Your task to perform on an android device: set the timer Image 0: 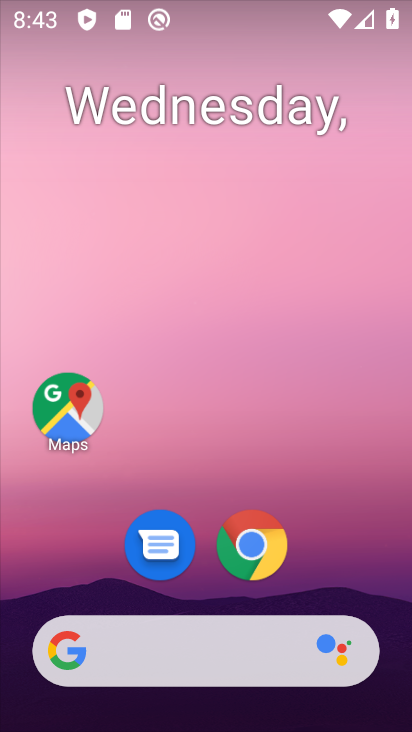
Step 0: press home button
Your task to perform on an android device: set the timer Image 1: 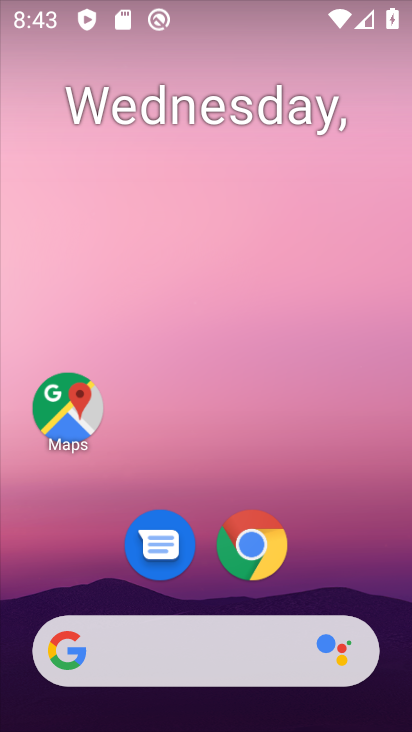
Step 1: drag from (196, 657) to (320, 175)
Your task to perform on an android device: set the timer Image 2: 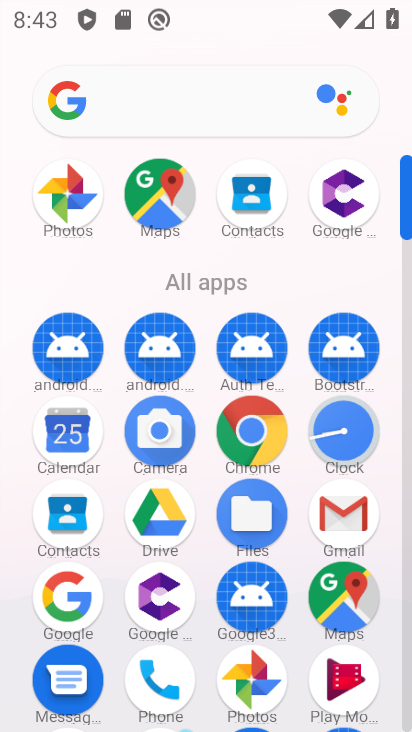
Step 2: click (334, 419)
Your task to perform on an android device: set the timer Image 3: 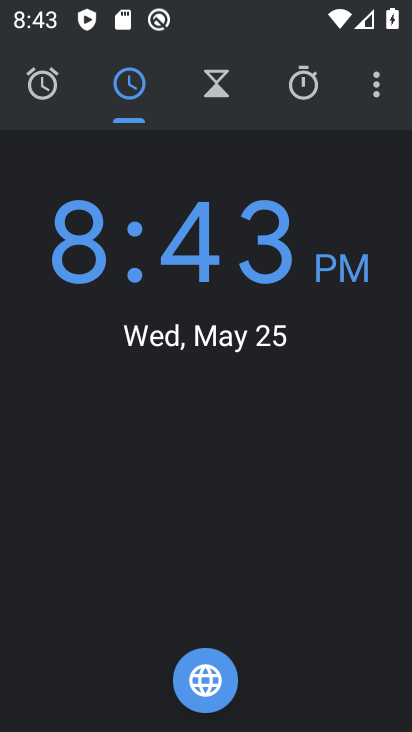
Step 3: click (217, 96)
Your task to perform on an android device: set the timer Image 4: 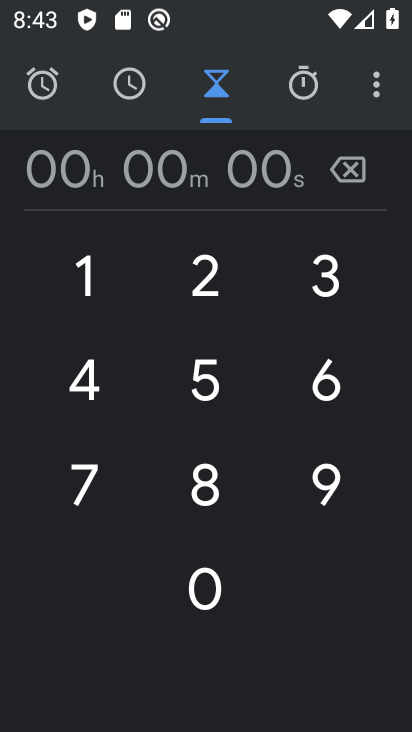
Step 4: click (86, 276)
Your task to perform on an android device: set the timer Image 5: 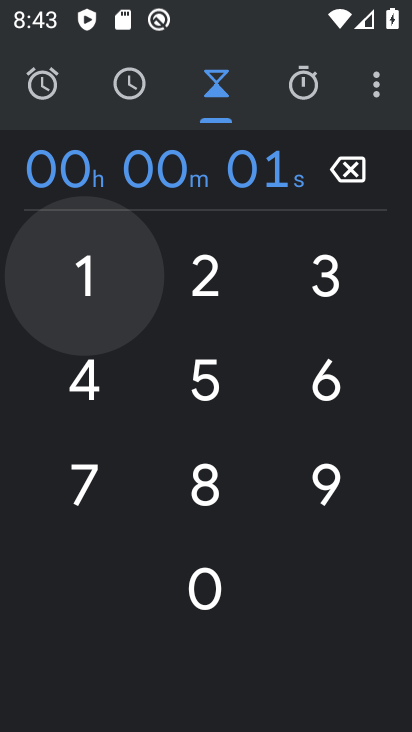
Step 5: click (205, 283)
Your task to perform on an android device: set the timer Image 6: 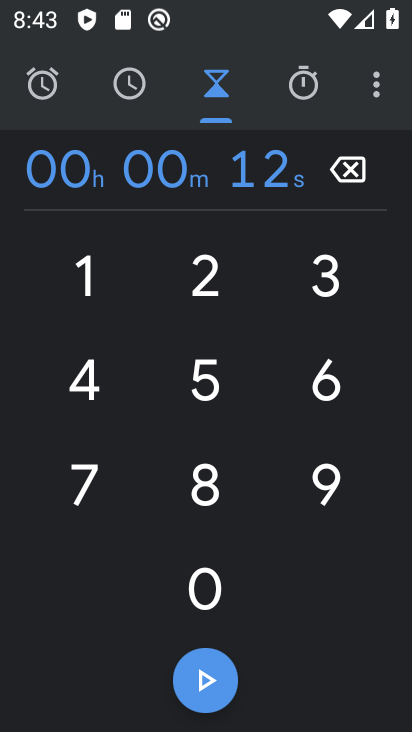
Step 6: click (202, 695)
Your task to perform on an android device: set the timer Image 7: 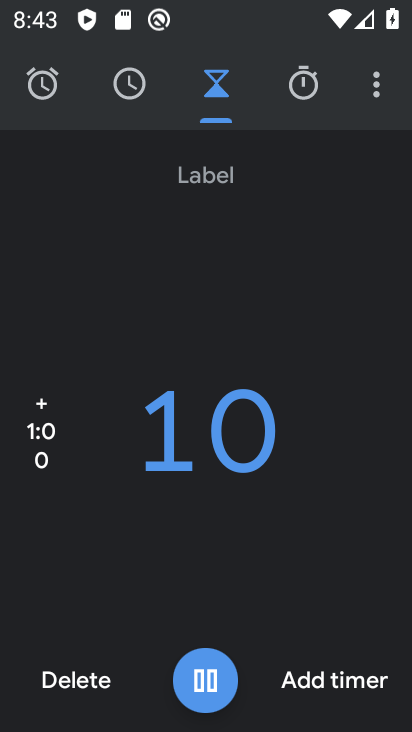
Step 7: click (202, 681)
Your task to perform on an android device: set the timer Image 8: 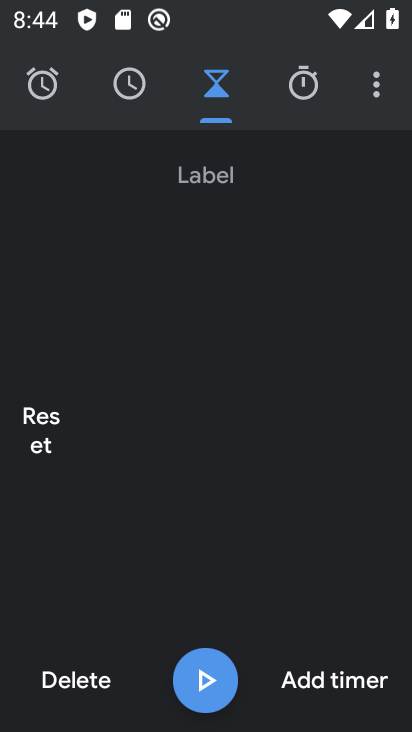
Step 8: task complete